Your task to perform on an android device: Open Google Maps and go to "Timeline" Image 0: 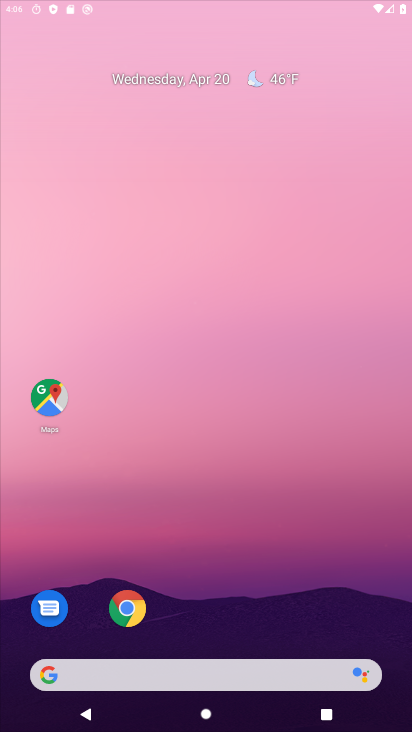
Step 0: drag from (167, 364) to (157, 18)
Your task to perform on an android device: Open Google Maps and go to "Timeline" Image 1: 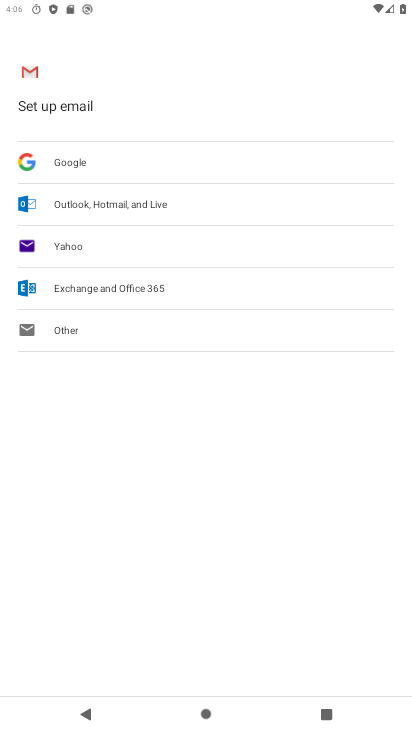
Step 1: press home button
Your task to perform on an android device: Open Google Maps and go to "Timeline" Image 2: 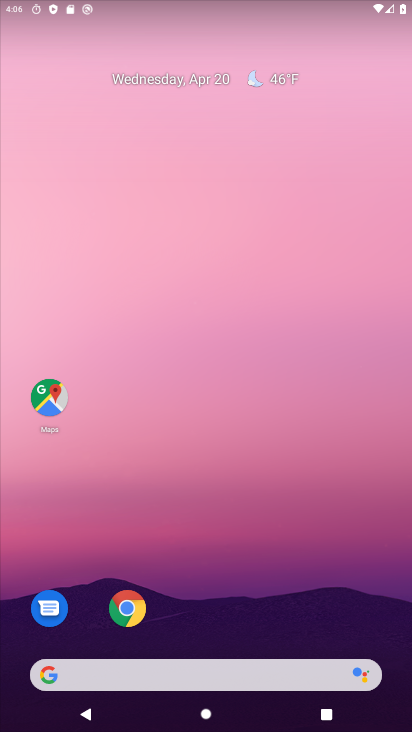
Step 2: drag from (241, 661) to (214, 79)
Your task to perform on an android device: Open Google Maps and go to "Timeline" Image 3: 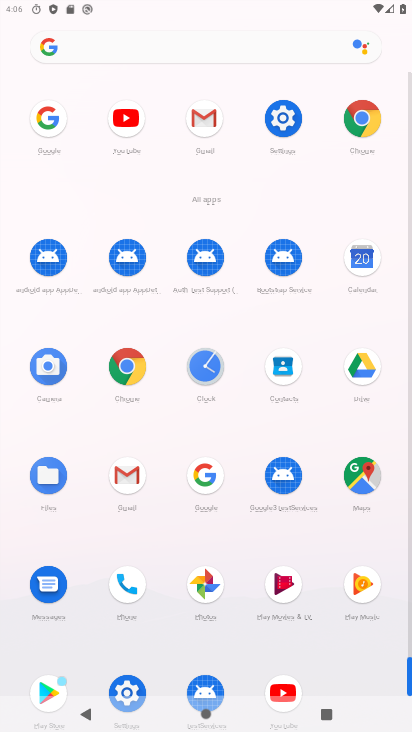
Step 3: click (368, 471)
Your task to perform on an android device: Open Google Maps and go to "Timeline" Image 4: 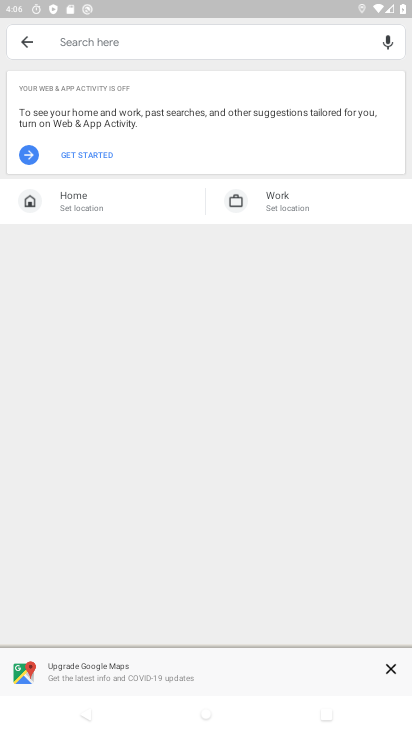
Step 4: click (18, 33)
Your task to perform on an android device: Open Google Maps and go to "Timeline" Image 5: 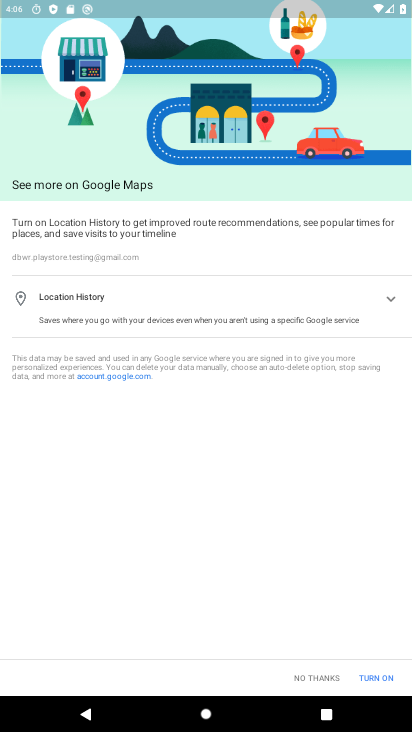
Step 5: click (387, 674)
Your task to perform on an android device: Open Google Maps and go to "Timeline" Image 6: 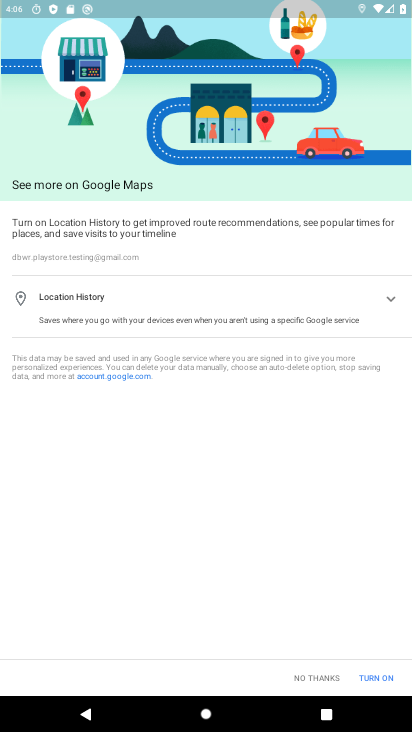
Step 6: click (387, 674)
Your task to perform on an android device: Open Google Maps and go to "Timeline" Image 7: 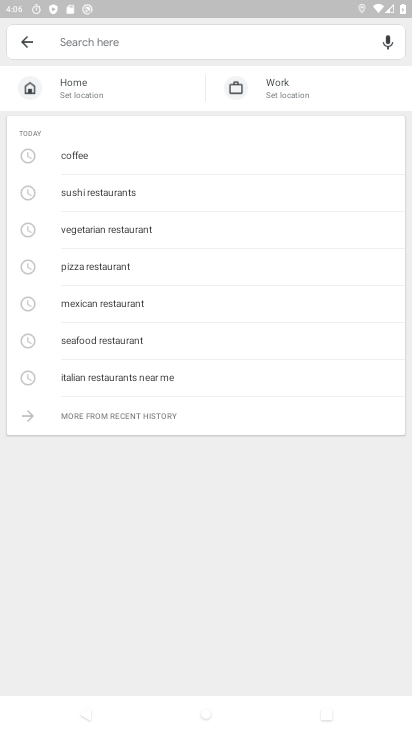
Step 7: click (29, 32)
Your task to perform on an android device: Open Google Maps and go to "Timeline" Image 8: 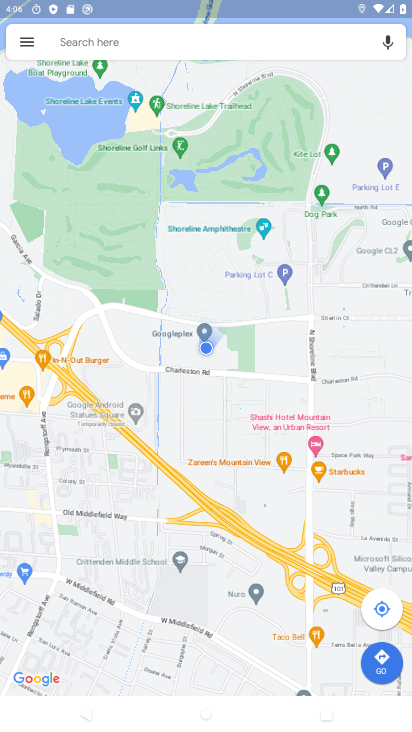
Step 8: click (29, 32)
Your task to perform on an android device: Open Google Maps and go to "Timeline" Image 9: 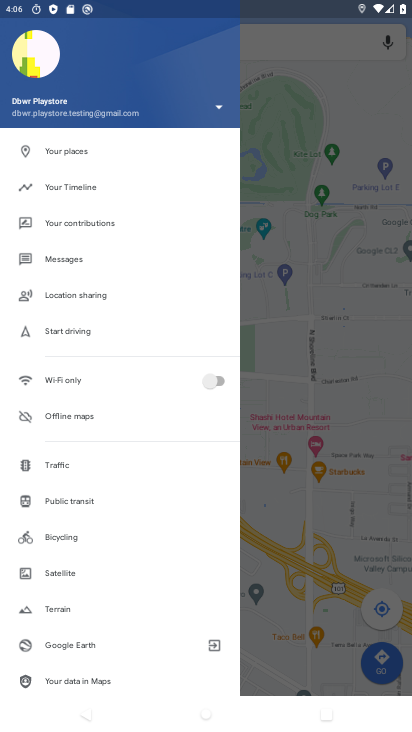
Step 9: click (91, 185)
Your task to perform on an android device: Open Google Maps and go to "Timeline" Image 10: 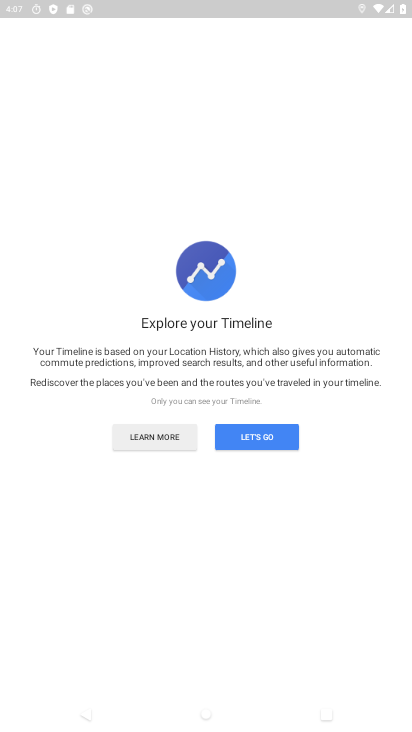
Step 10: click (270, 437)
Your task to perform on an android device: Open Google Maps and go to "Timeline" Image 11: 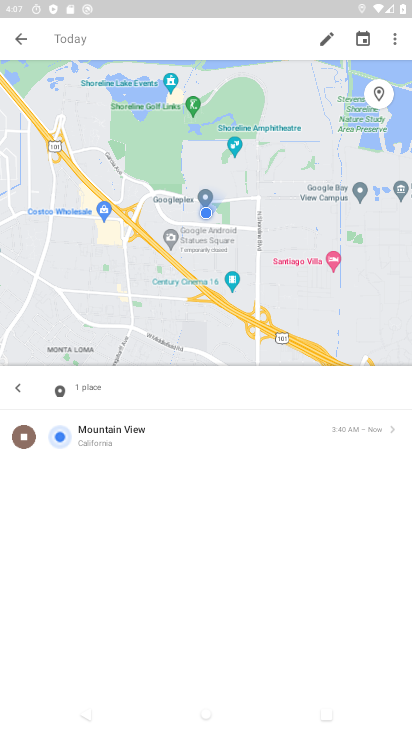
Step 11: task complete